Your task to perform on an android device: Go to Yahoo.com Image 0: 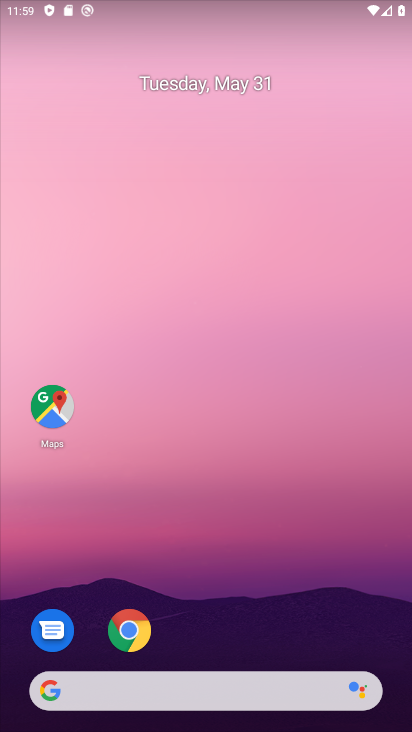
Step 0: drag from (368, 578) to (370, 172)
Your task to perform on an android device: Go to Yahoo.com Image 1: 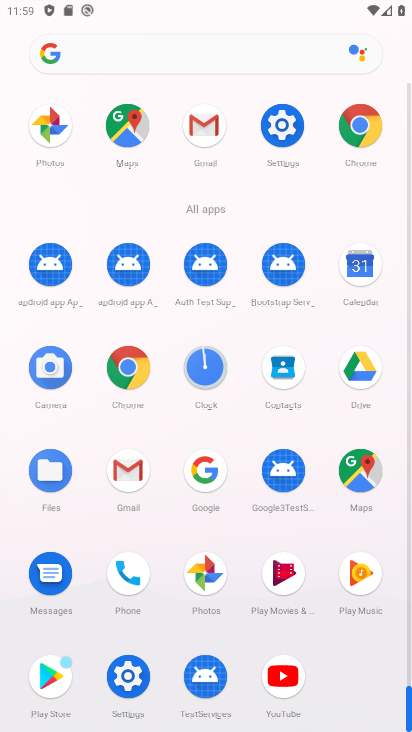
Step 1: click (144, 370)
Your task to perform on an android device: Go to Yahoo.com Image 2: 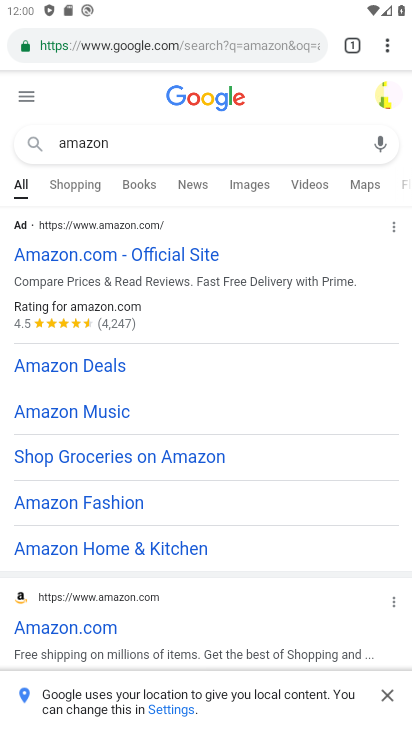
Step 2: click (268, 44)
Your task to perform on an android device: Go to Yahoo.com Image 3: 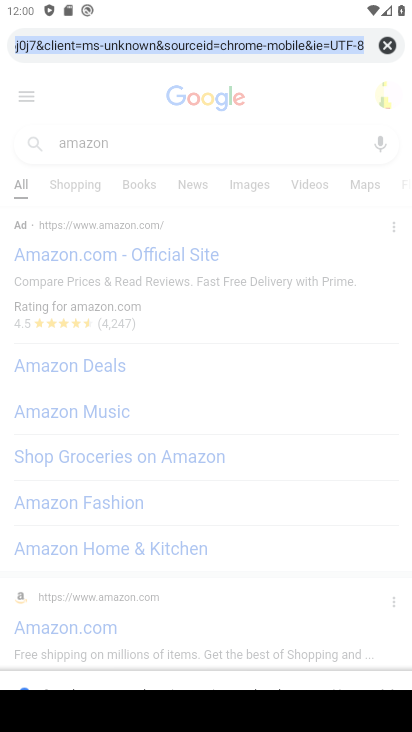
Step 3: click (384, 40)
Your task to perform on an android device: Go to Yahoo.com Image 4: 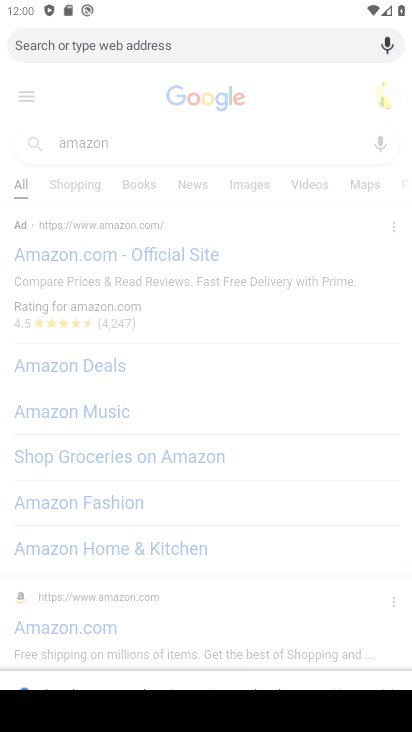
Step 4: type "yahoo.com"
Your task to perform on an android device: Go to Yahoo.com Image 5: 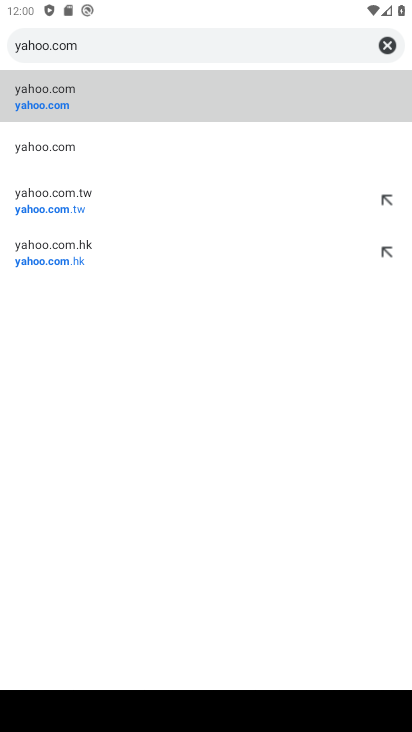
Step 5: click (100, 95)
Your task to perform on an android device: Go to Yahoo.com Image 6: 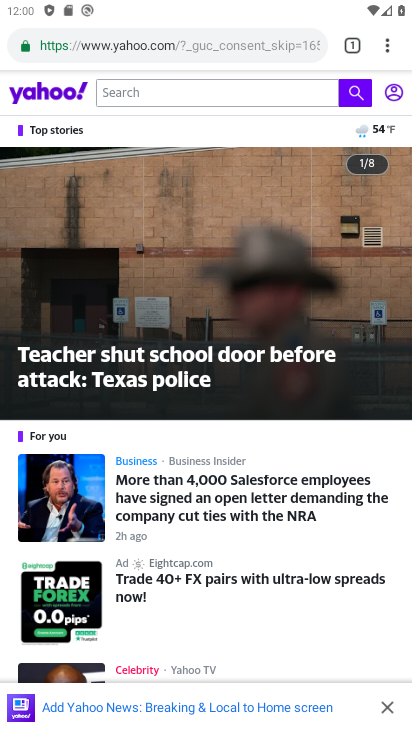
Step 6: task complete